Your task to perform on an android device: Go to Google Image 0: 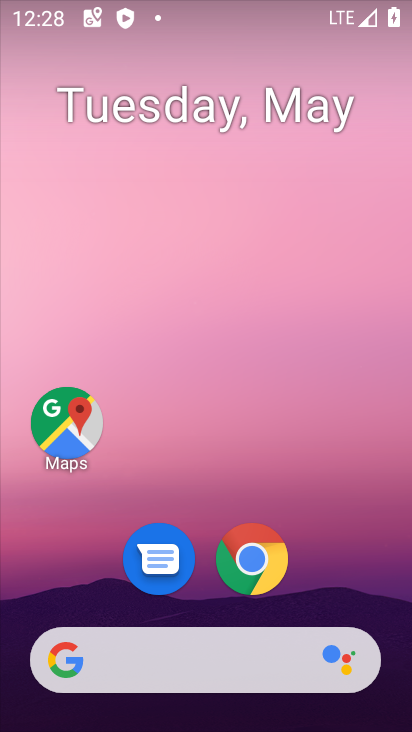
Step 0: drag from (385, 581) to (355, 55)
Your task to perform on an android device: Go to Google Image 1: 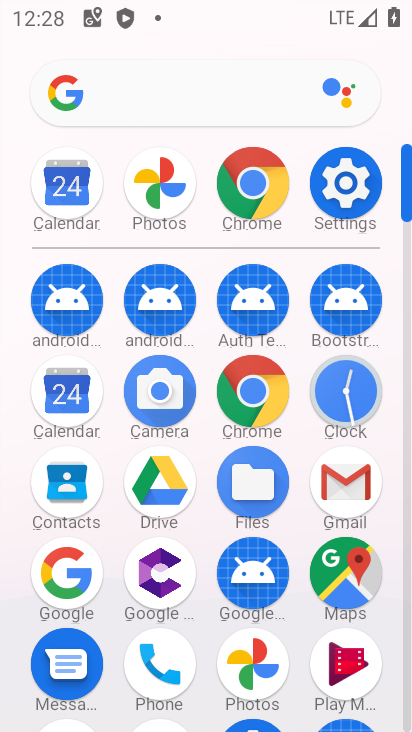
Step 1: click (255, 215)
Your task to perform on an android device: Go to Google Image 2: 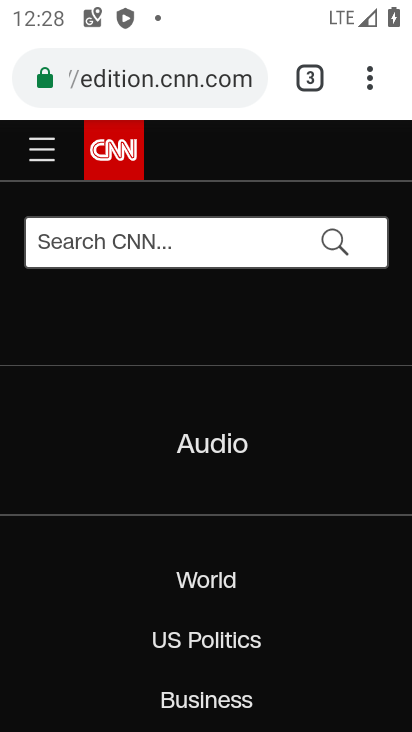
Step 2: click (220, 86)
Your task to perform on an android device: Go to Google Image 3: 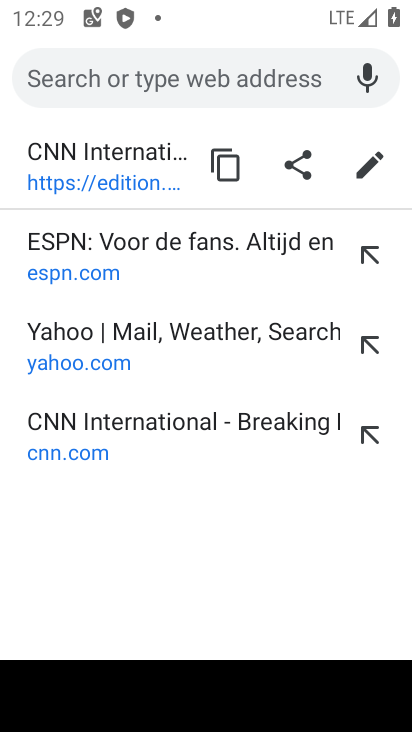
Step 3: type "google.com"
Your task to perform on an android device: Go to Google Image 4: 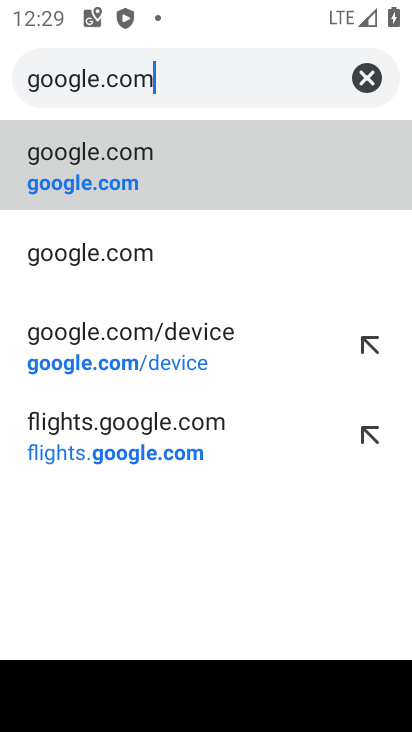
Step 4: click (183, 162)
Your task to perform on an android device: Go to Google Image 5: 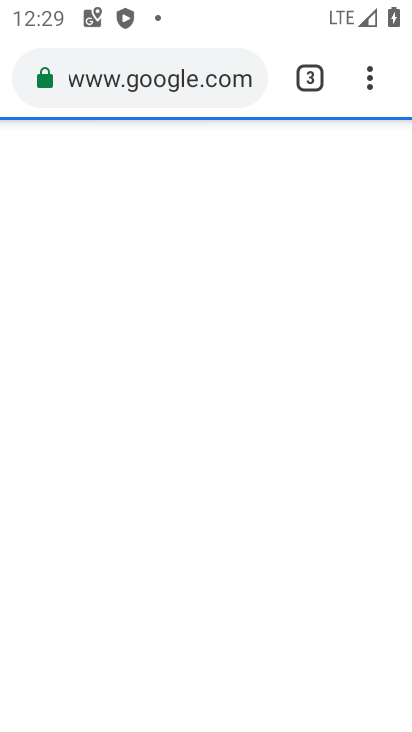
Step 5: task complete